Your task to perform on an android device: Go to wifi settings Image 0: 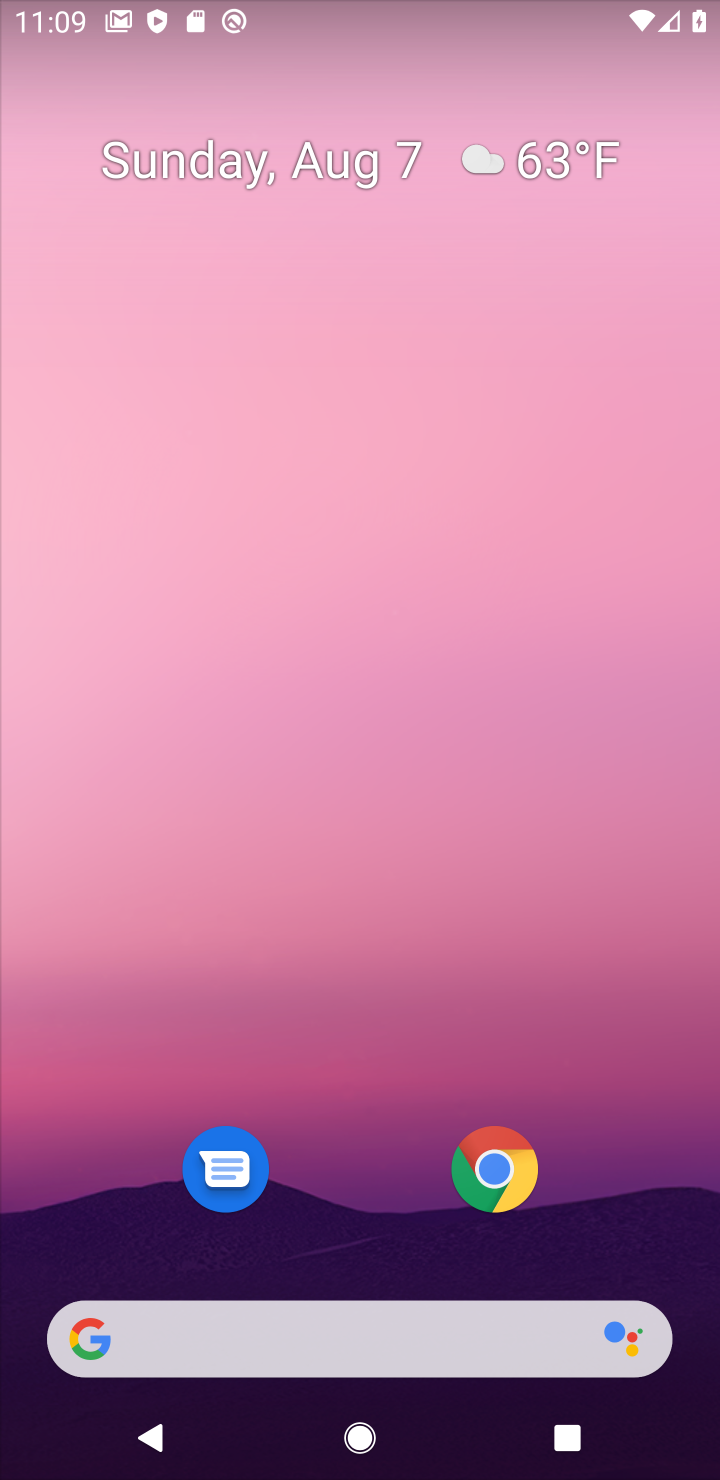
Step 0: drag from (358, 1276) to (344, 9)
Your task to perform on an android device: Go to wifi settings Image 1: 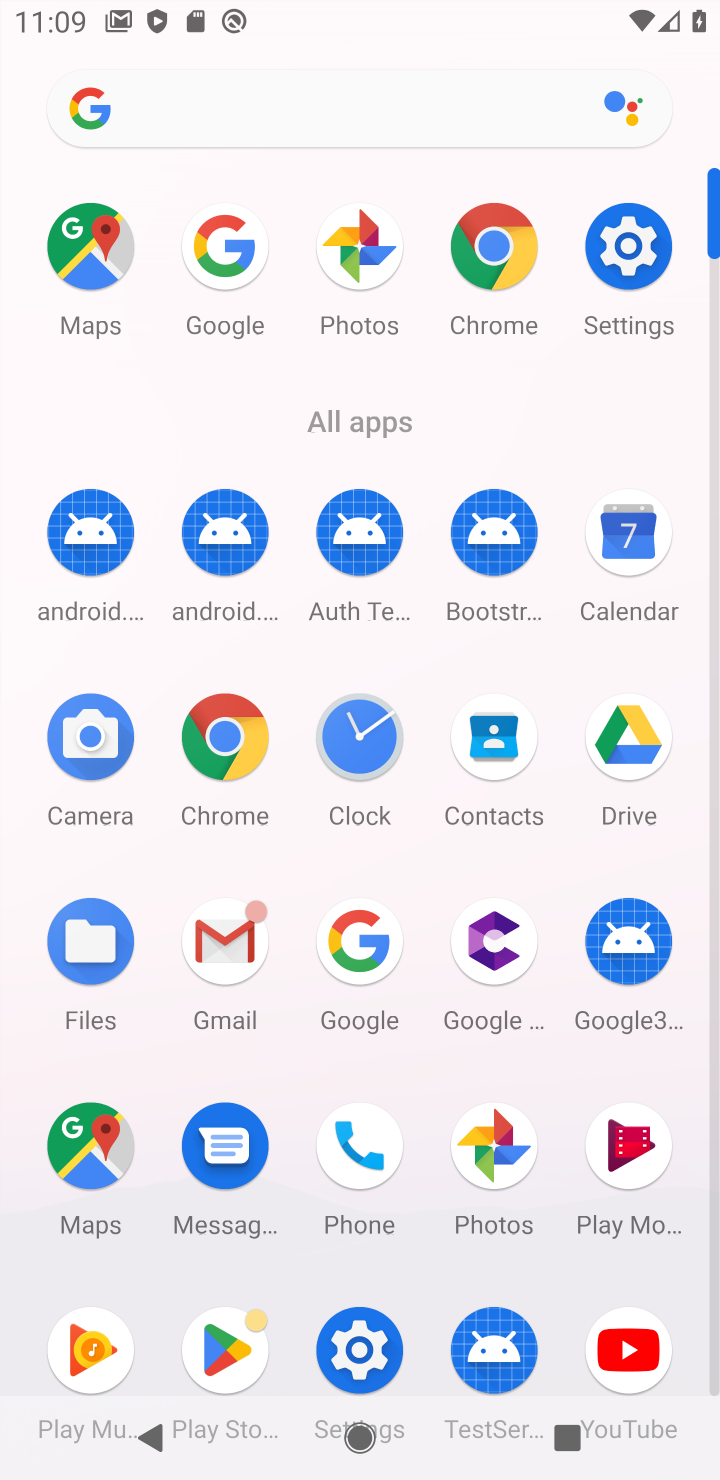
Step 1: click (636, 244)
Your task to perform on an android device: Go to wifi settings Image 2: 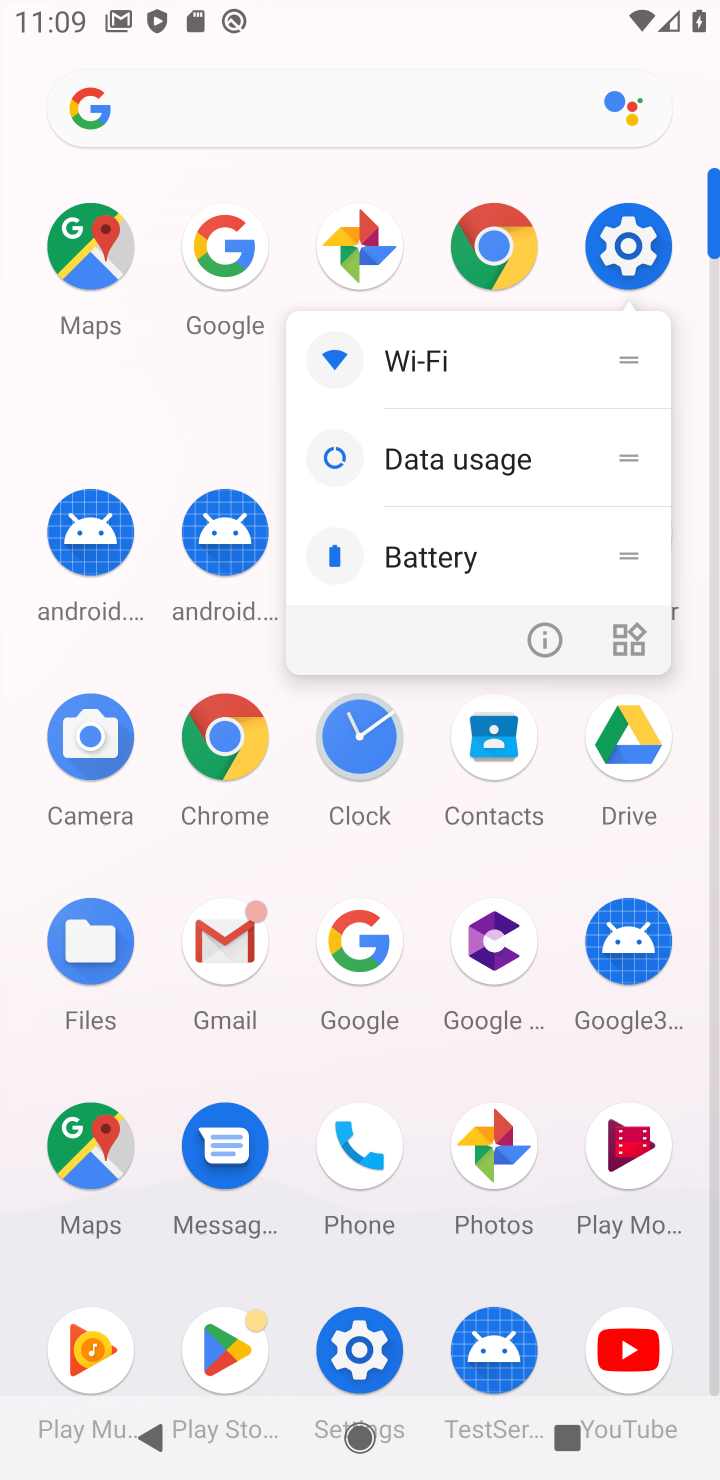
Step 2: click (632, 244)
Your task to perform on an android device: Go to wifi settings Image 3: 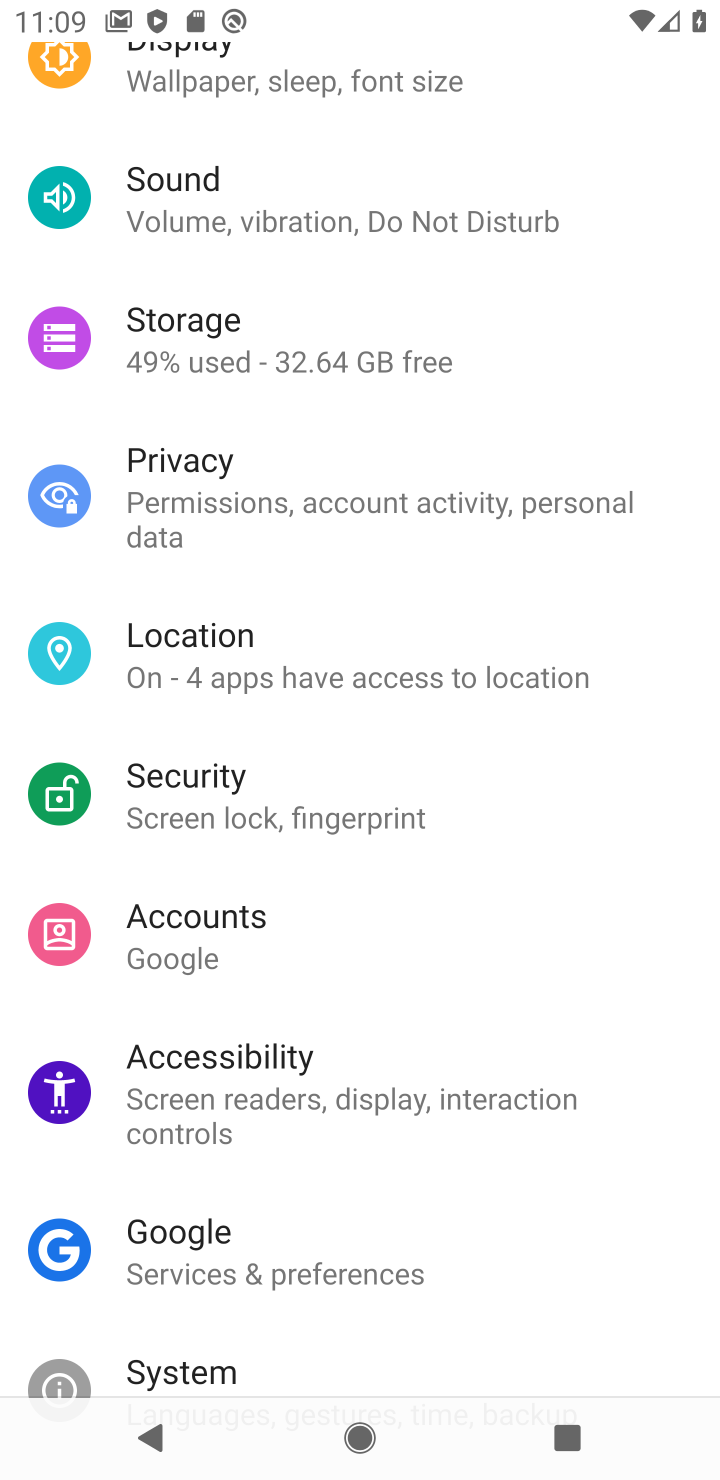
Step 3: drag from (548, 309) to (389, 1057)
Your task to perform on an android device: Go to wifi settings Image 4: 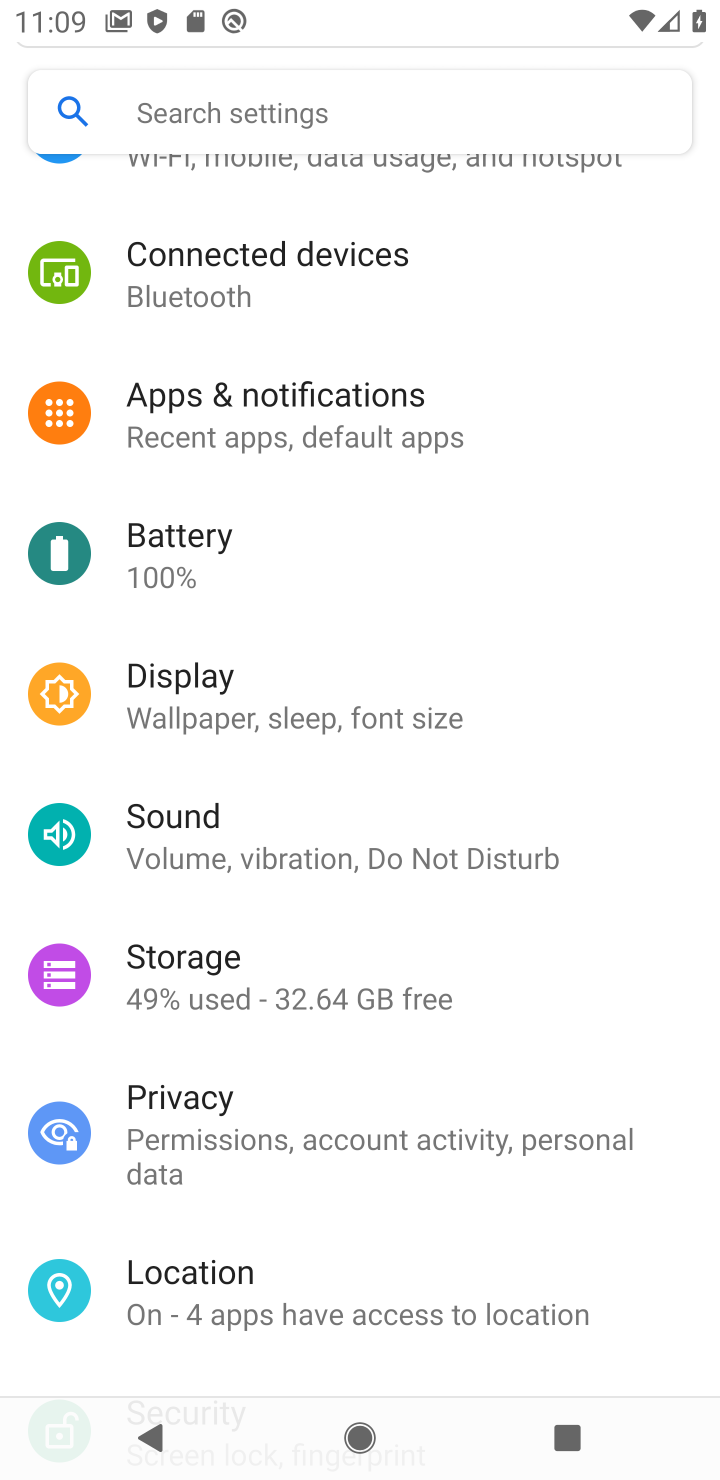
Step 4: drag from (264, 253) to (160, 1061)
Your task to perform on an android device: Go to wifi settings Image 5: 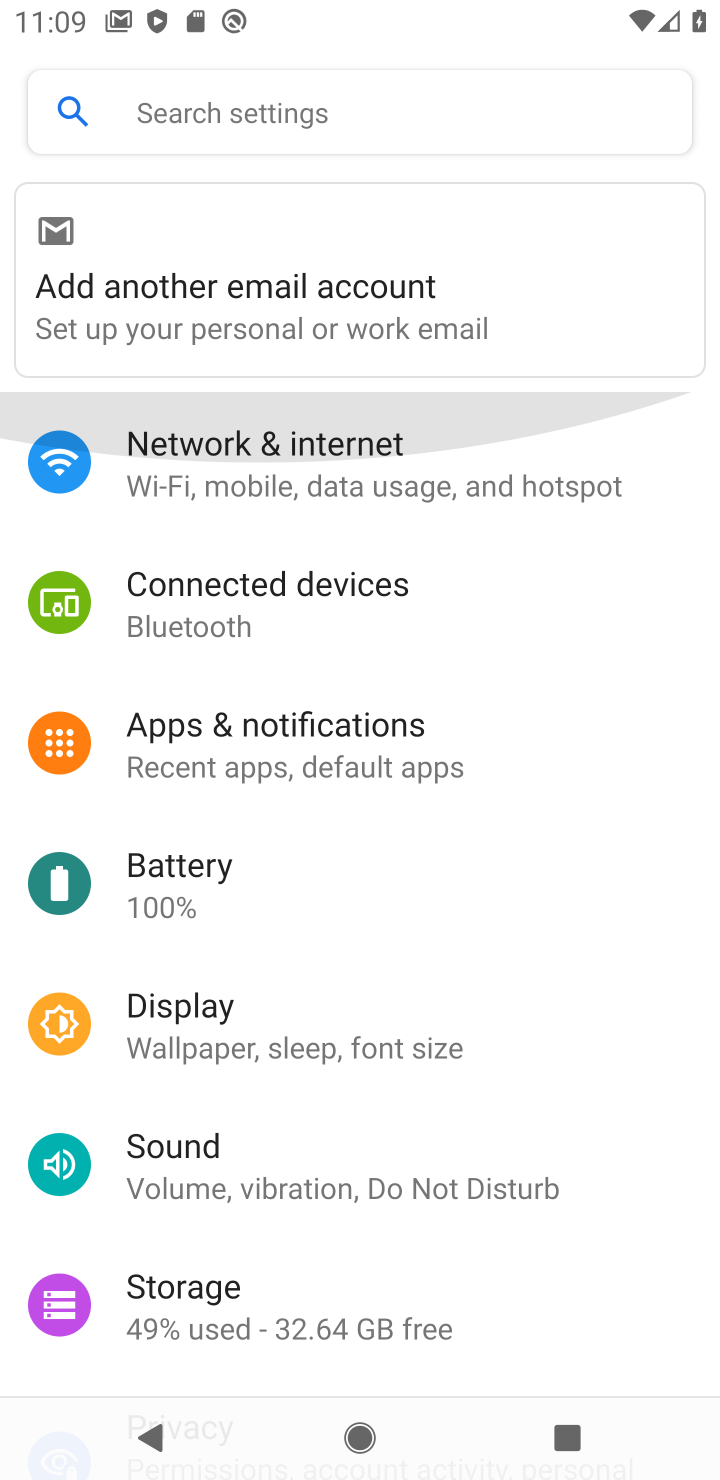
Step 5: click (163, 435)
Your task to perform on an android device: Go to wifi settings Image 6: 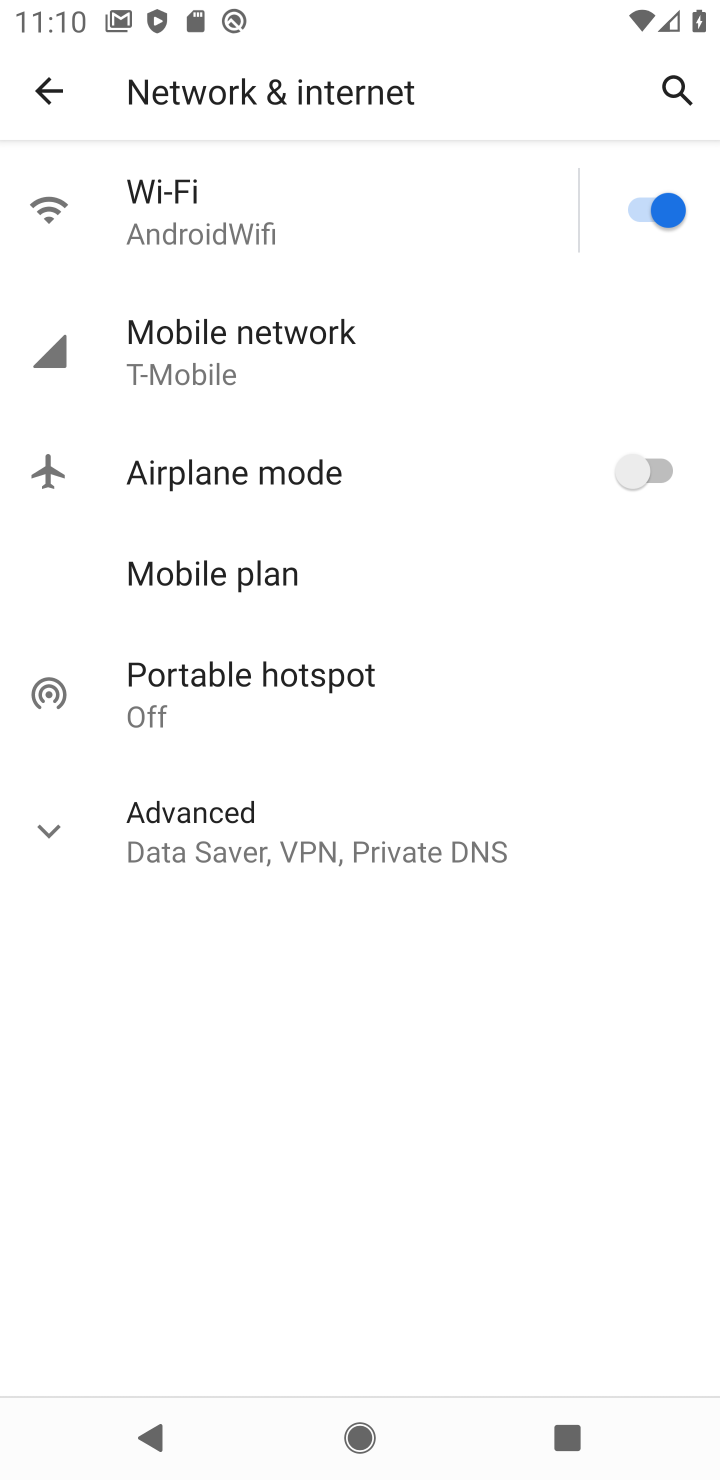
Step 6: click (220, 227)
Your task to perform on an android device: Go to wifi settings Image 7: 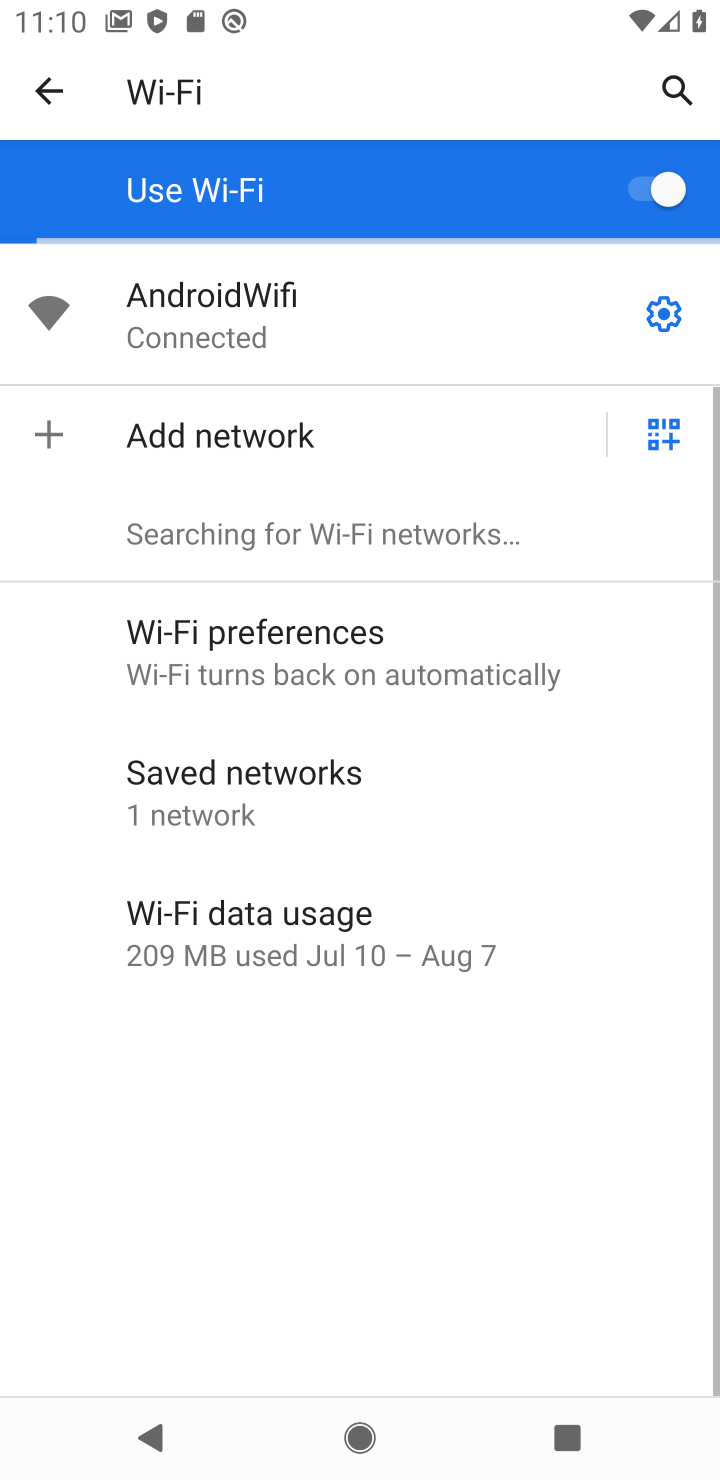
Step 7: task complete